Your task to perform on an android device: open chrome and create a bookmark for the current page Image 0: 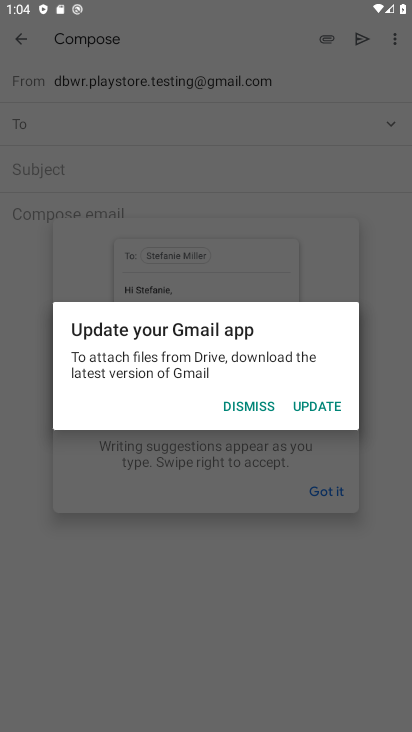
Step 0: press home button
Your task to perform on an android device: open chrome and create a bookmark for the current page Image 1: 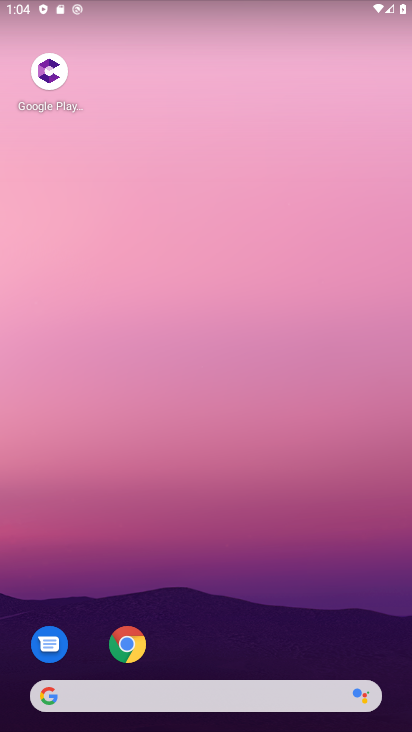
Step 1: click (127, 654)
Your task to perform on an android device: open chrome and create a bookmark for the current page Image 2: 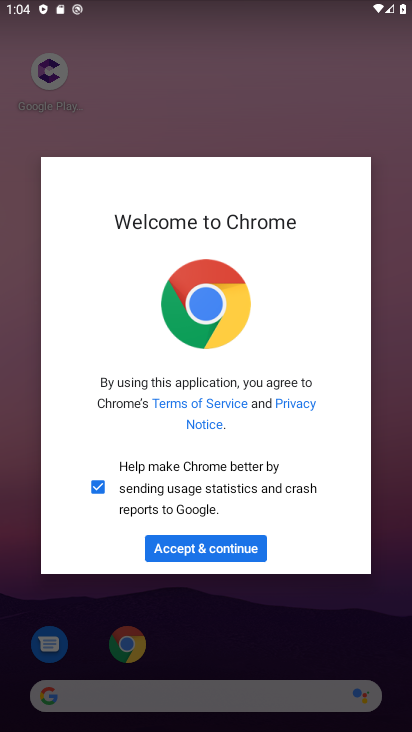
Step 2: click (246, 541)
Your task to perform on an android device: open chrome and create a bookmark for the current page Image 3: 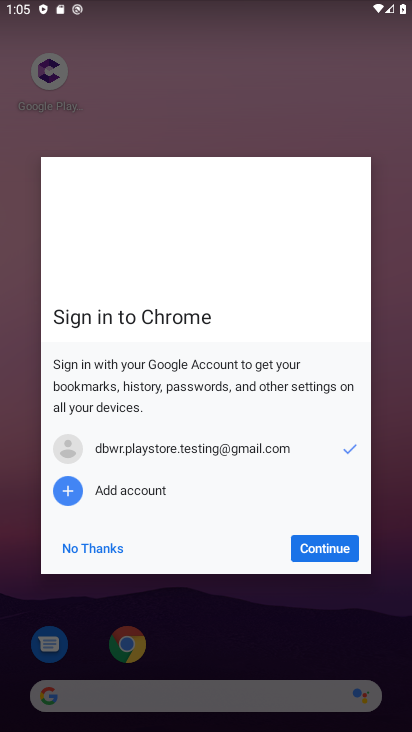
Step 3: click (329, 557)
Your task to perform on an android device: open chrome and create a bookmark for the current page Image 4: 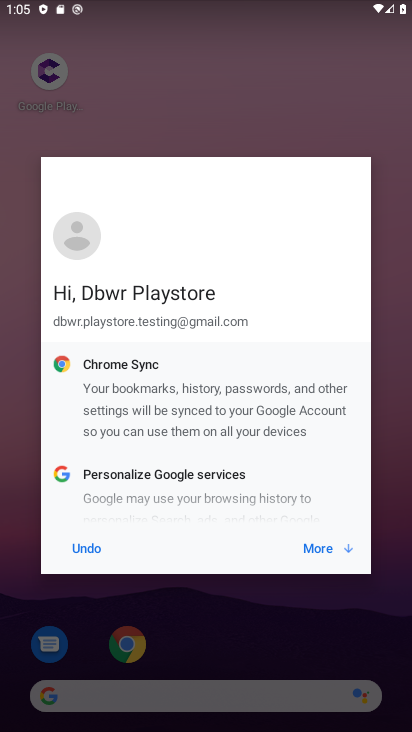
Step 4: click (329, 557)
Your task to perform on an android device: open chrome and create a bookmark for the current page Image 5: 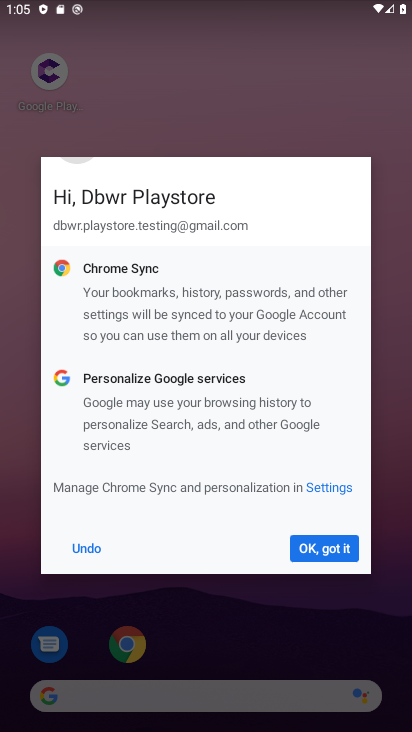
Step 5: click (329, 557)
Your task to perform on an android device: open chrome and create a bookmark for the current page Image 6: 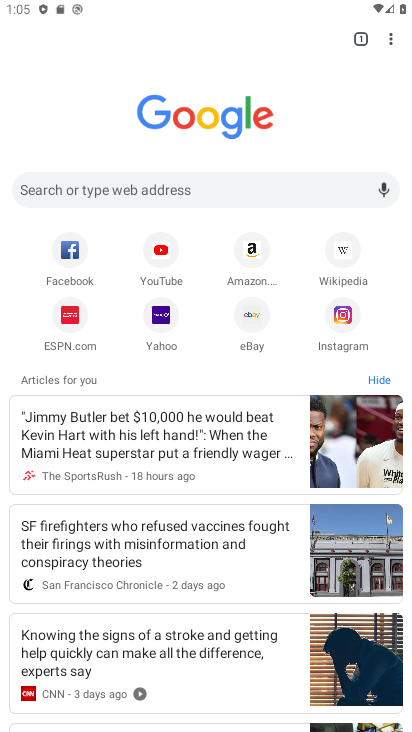
Step 6: click (387, 30)
Your task to perform on an android device: open chrome and create a bookmark for the current page Image 7: 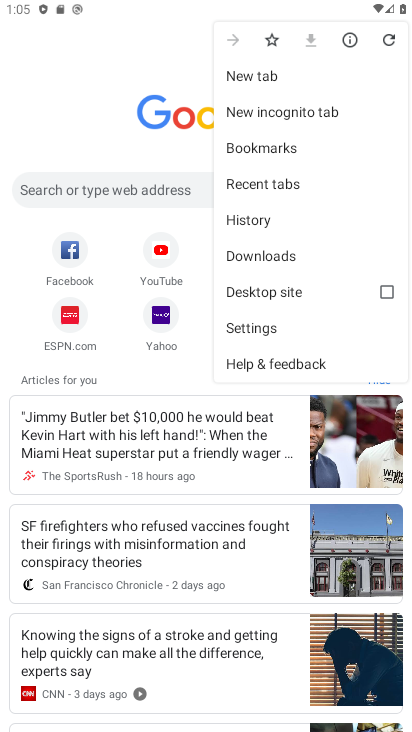
Step 7: click (279, 157)
Your task to perform on an android device: open chrome and create a bookmark for the current page Image 8: 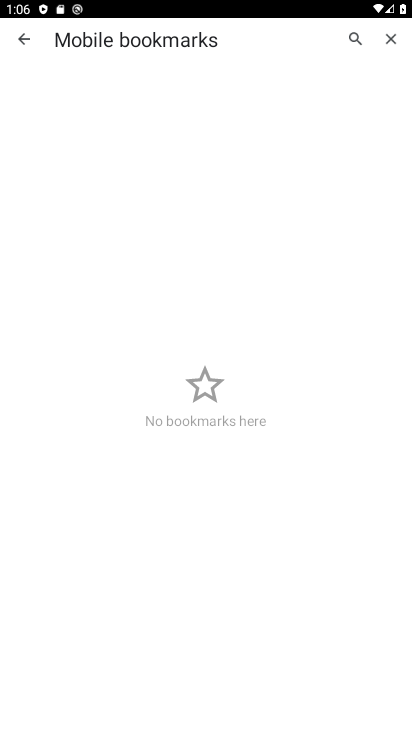
Step 8: task complete